Your task to perform on an android device: Open Chrome and go to the settings page Image 0: 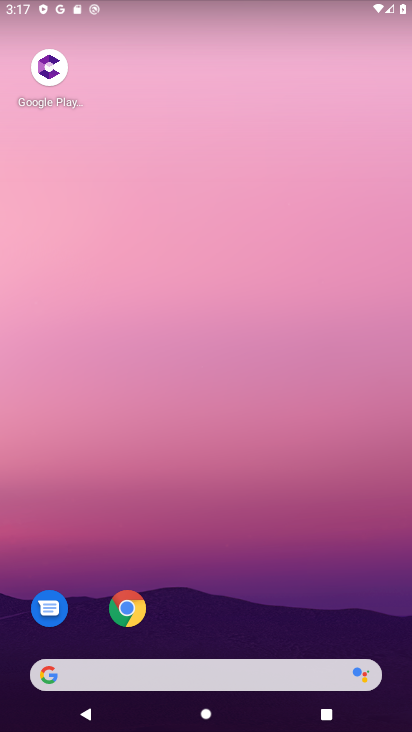
Step 0: task complete